Your task to perform on an android device: open app "Duolingo: language lessons" (install if not already installed) and enter user name: "omens@gmail.com" and password: "casks" Image 0: 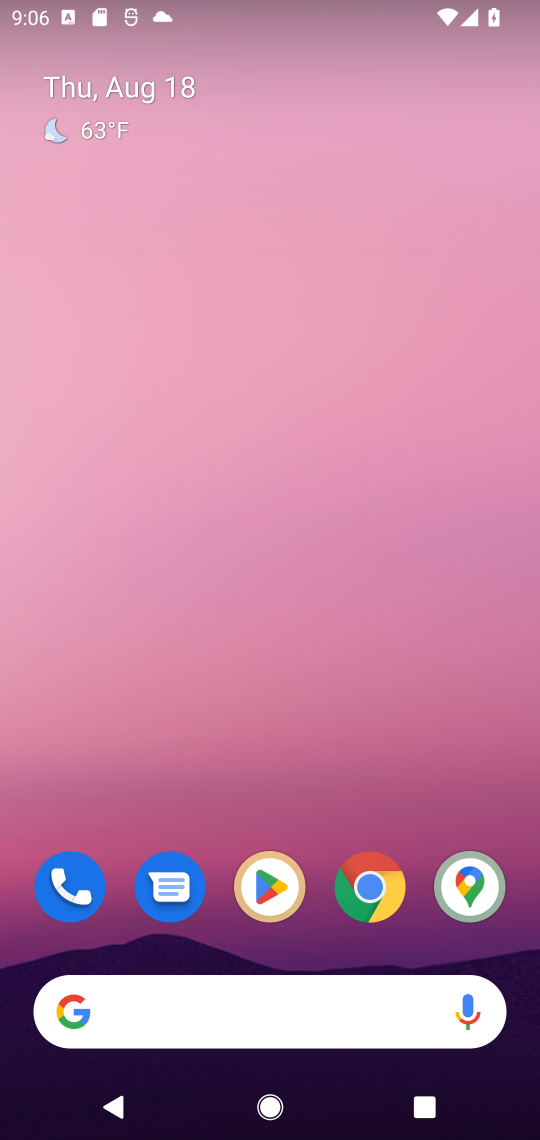
Step 0: click (267, 886)
Your task to perform on an android device: open app "Duolingo: language lessons" (install if not already installed) and enter user name: "omens@gmail.com" and password: "casks" Image 1: 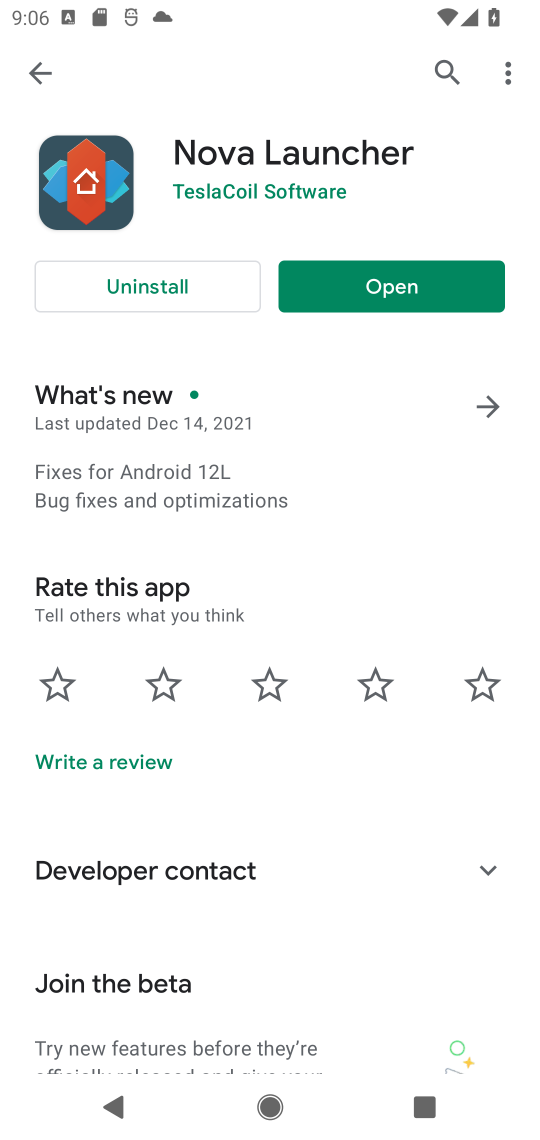
Step 1: click (443, 76)
Your task to perform on an android device: open app "Duolingo: language lessons" (install if not already installed) and enter user name: "omens@gmail.com" and password: "casks" Image 2: 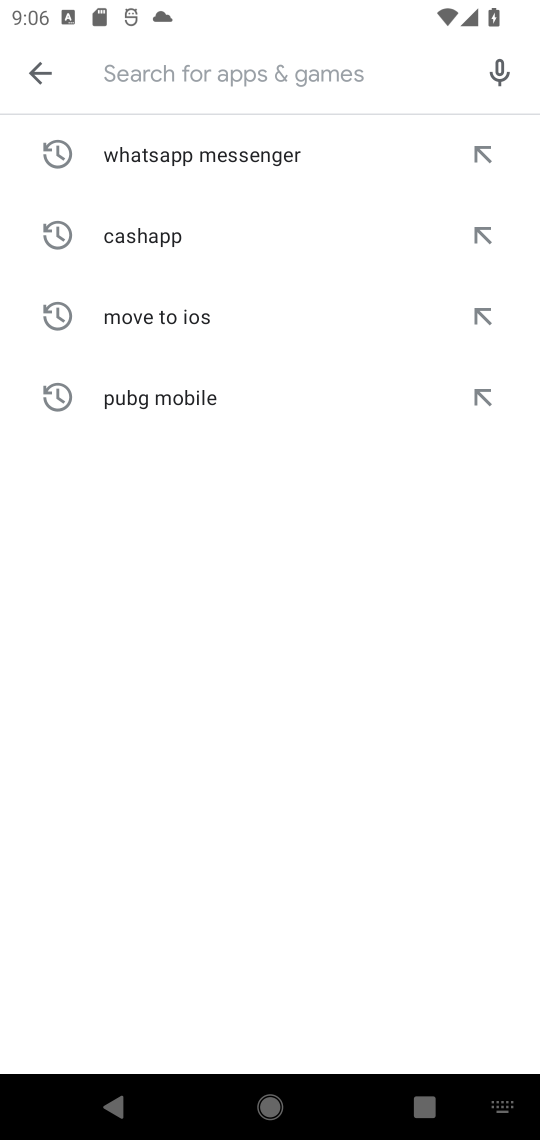
Step 2: type "Duolingo: language lesson"
Your task to perform on an android device: open app "Duolingo: language lessons" (install if not already installed) and enter user name: "omens@gmail.com" and password: "casks" Image 3: 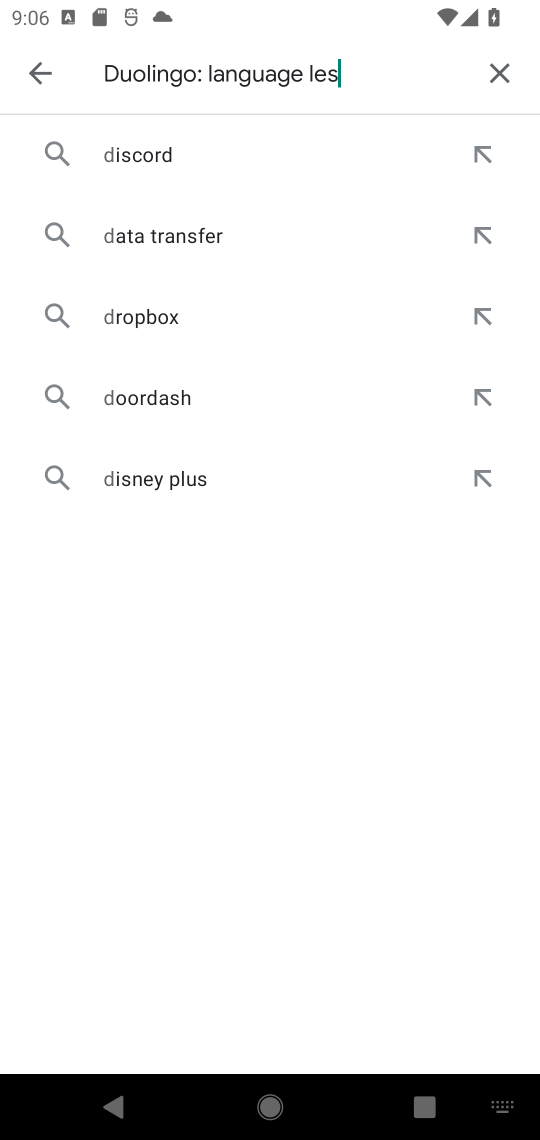
Step 3: type ""
Your task to perform on an android device: open app "Duolingo: language lessons" (install if not already installed) and enter user name: "omens@gmail.com" and password: "casks" Image 4: 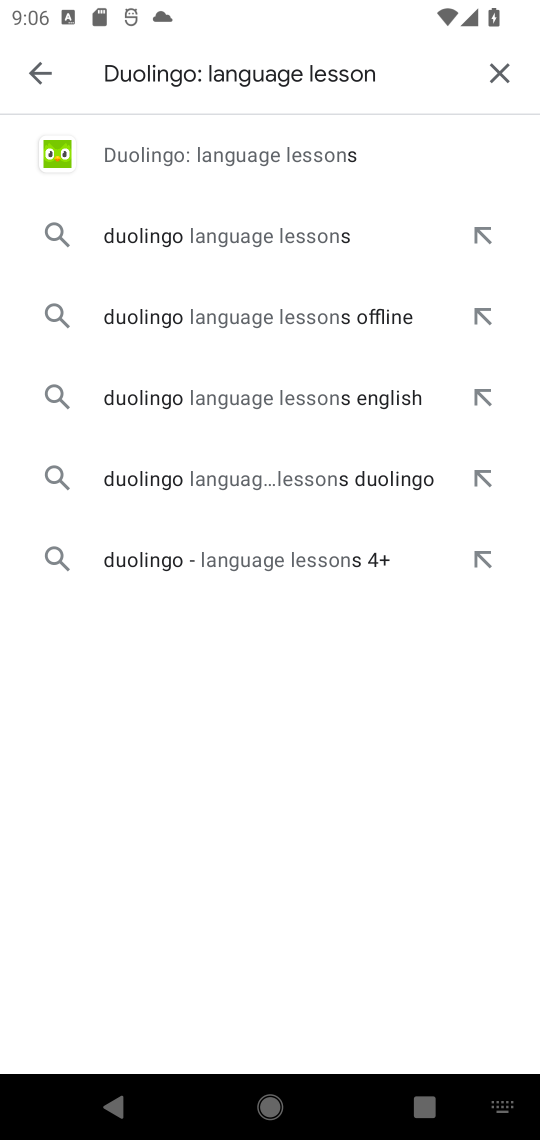
Step 4: click (197, 153)
Your task to perform on an android device: open app "Duolingo: language lessons" (install if not already installed) and enter user name: "omens@gmail.com" and password: "casks" Image 5: 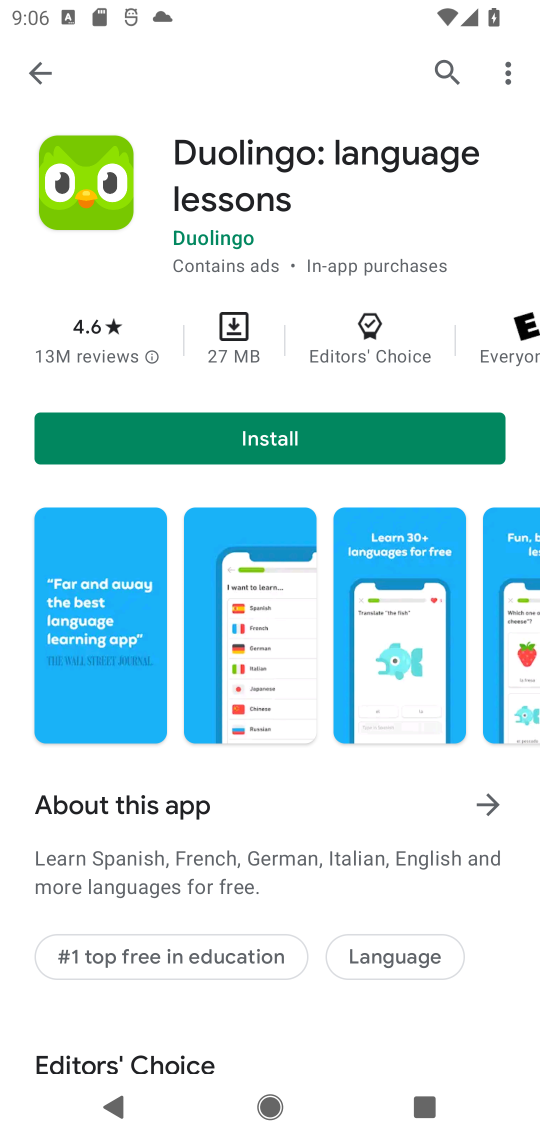
Step 5: click (268, 446)
Your task to perform on an android device: open app "Duolingo: language lessons" (install if not already installed) and enter user name: "omens@gmail.com" and password: "casks" Image 6: 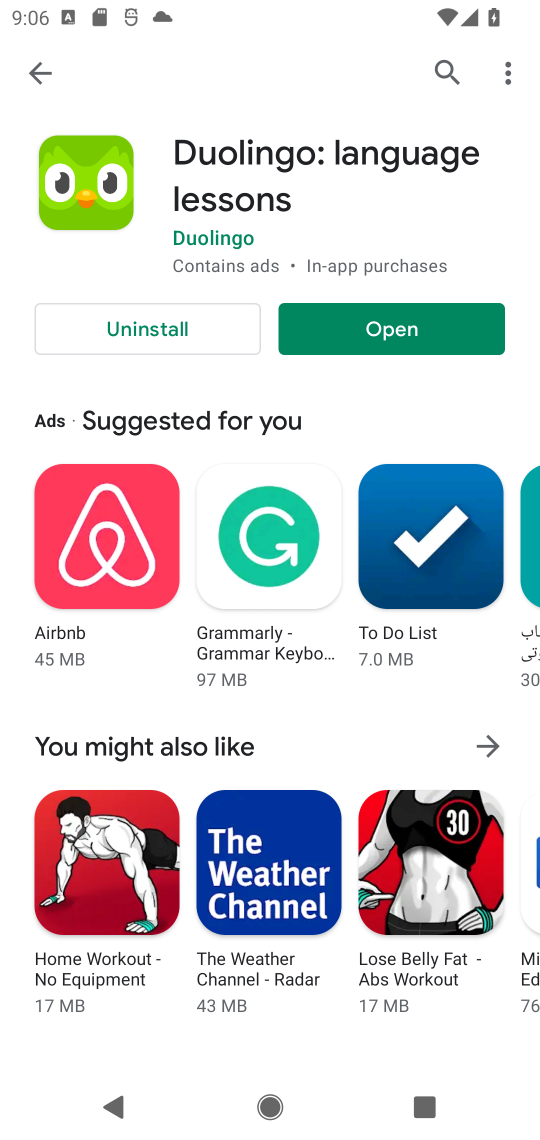
Step 6: click (412, 327)
Your task to perform on an android device: open app "Duolingo: language lessons" (install if not already installed) and enter user name: "omens@gmail.com" and password: "casks" Image 7: 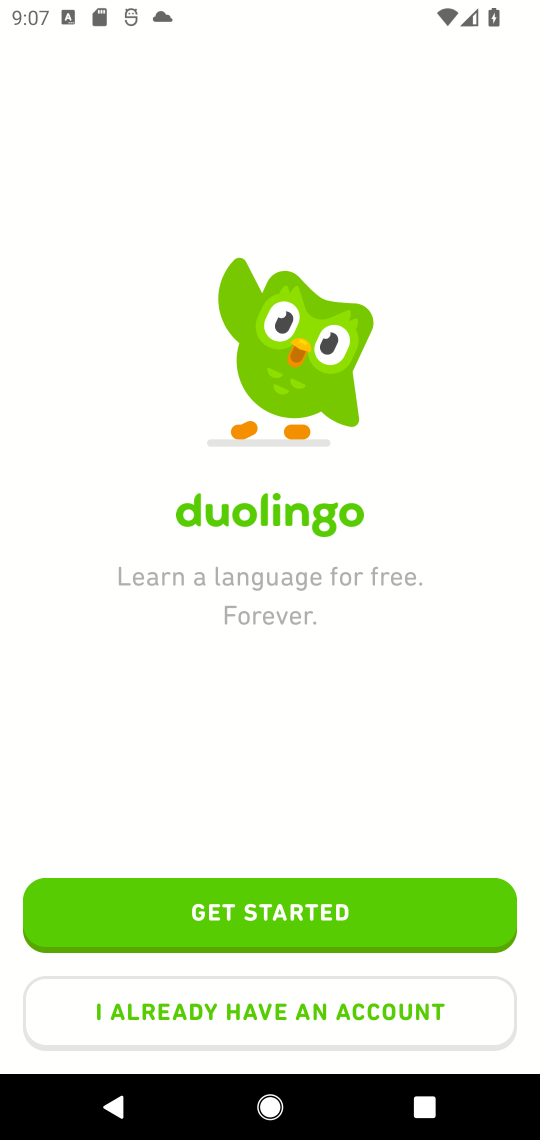
Step 7: click (193, 1006)
Your task to perform on an android device: open app "Duolingo: language lessons" (install if not already installed) and enter user name: "omens@gmail.com" and password: "casks" Image 8: 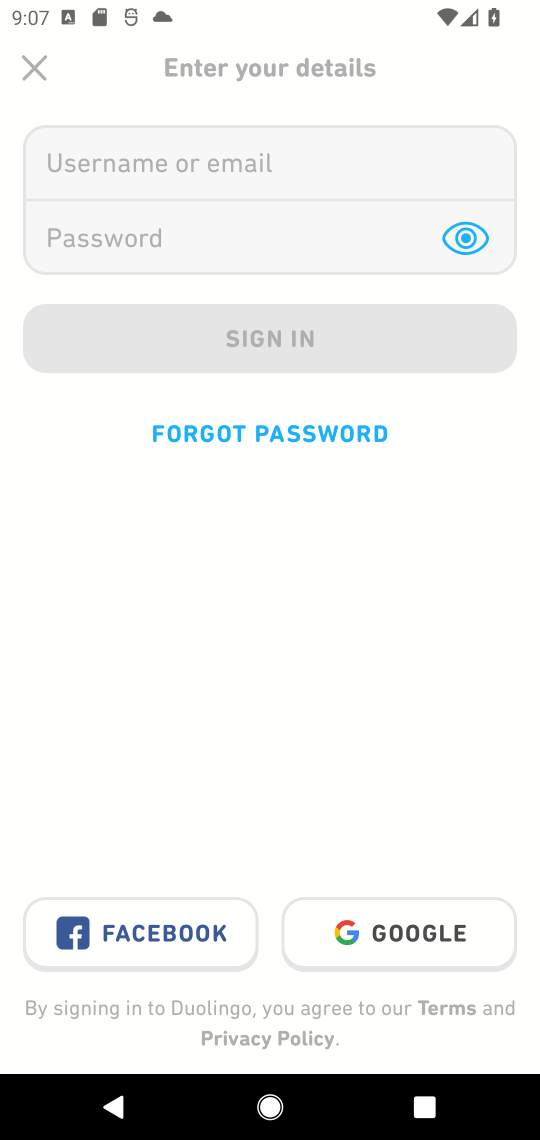
Step 8: click (311, 153)
Your task to perform on an android device: open app "Duolingo: language lessons" (install if not already installed) and enter user name: "omens@gmail.com" and password: "casks" Image 9: 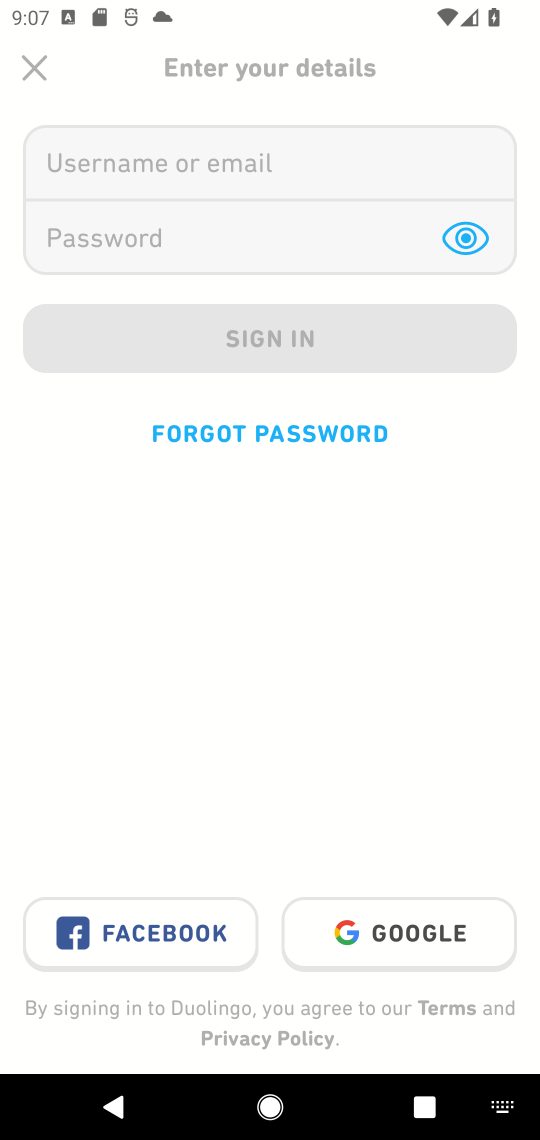
Step 9: type "omens@gmail.com"
Your task to perform on an android device: open app "Duolingo: language lessons" (install if not already installed) and enter user name: "omens@gmail.com" and password: "casks" Image 10: 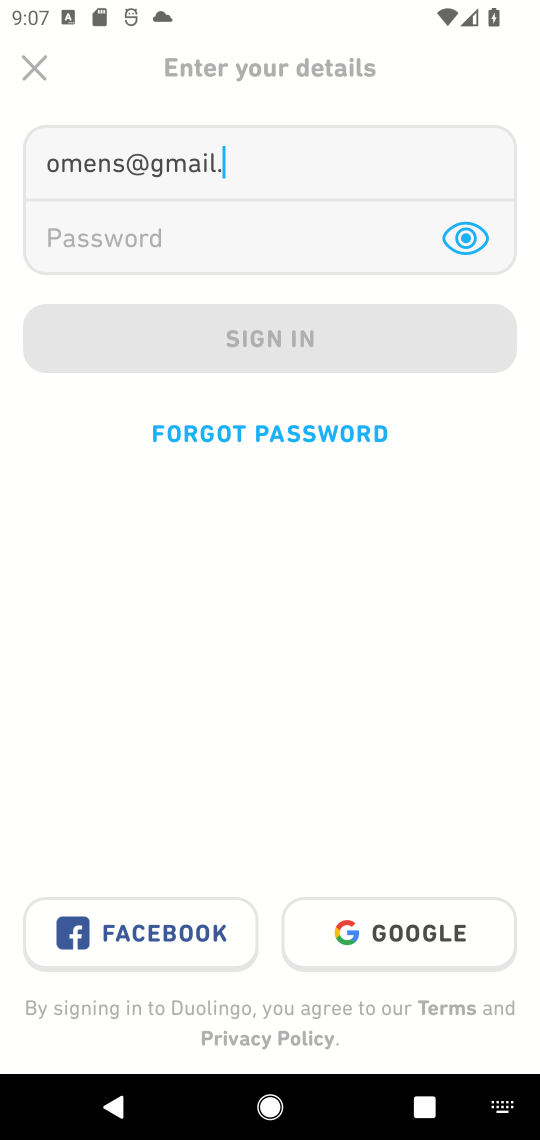
Step 10: type ""
Your task to perform on an android device: open app "Duolingo: language lessons" (install if not already installed) and enter user name: "omens@gmail.com" and password: "casks" Image 11: 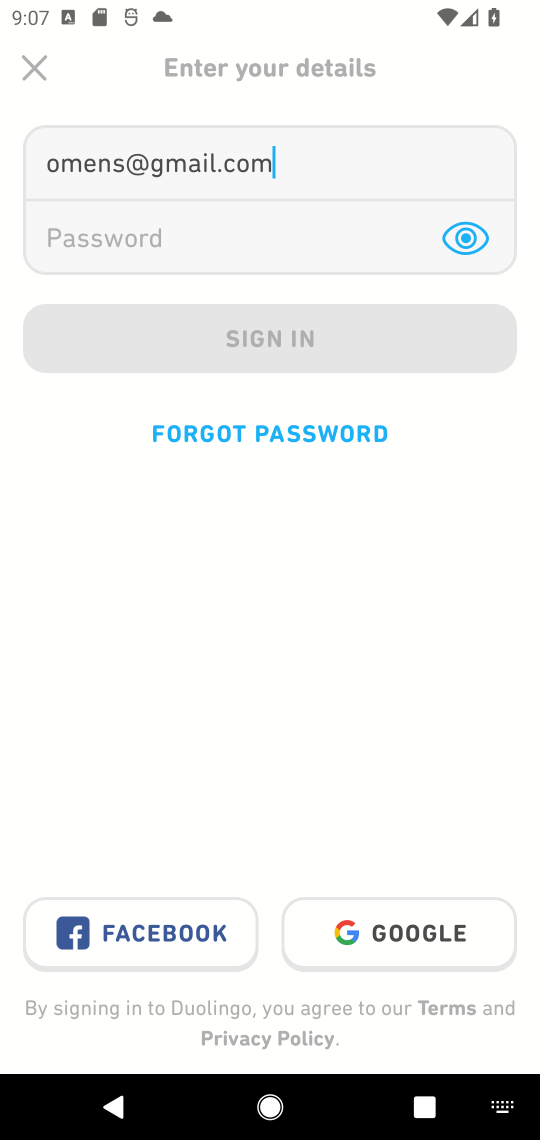
Step 11: click (188, 241)
Your task to perform on an android device: open app "Duolingo: language lessons" (install if not already installed) and enter user name: "omens@gmail.com" and password: "casks" Image 12: 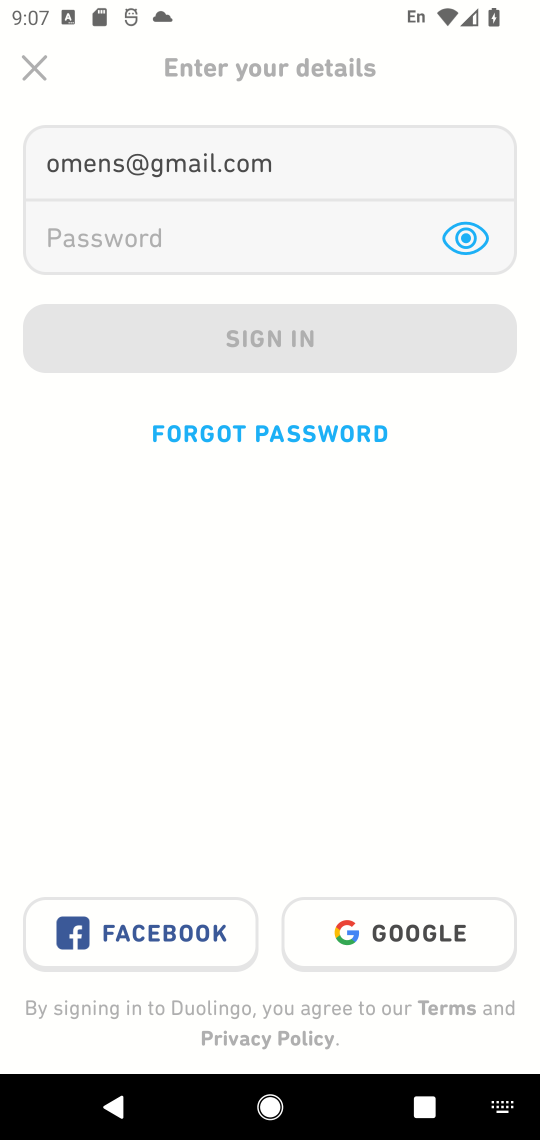
Step 12: type "casks"
Your task to perform on an android device: open app "Duolingo: language lessons" (install if not already installed) and enter user name: "omens@gmail.com" and password: "casks" Image 13: 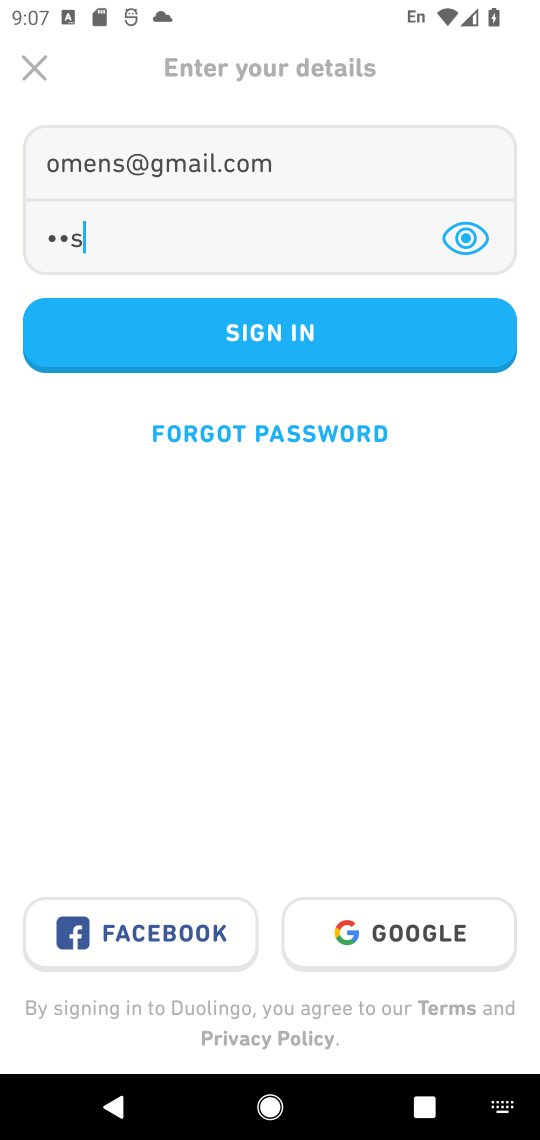
Step 13: type ""
Your task to perform on an android device: open app "Duolingo: language lessons" (install if not already installed) and enter user name: "omens@gmail.com" and password: "casks" Image 14: 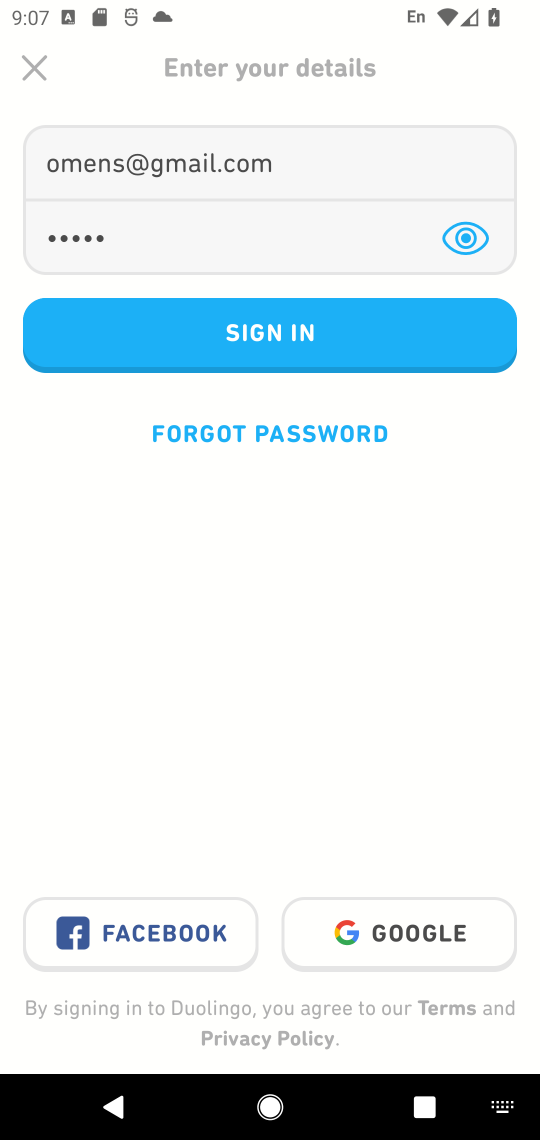
Step 14: task complete